Your task to perform on an android device: Open Maps and search for coffee Image 0: 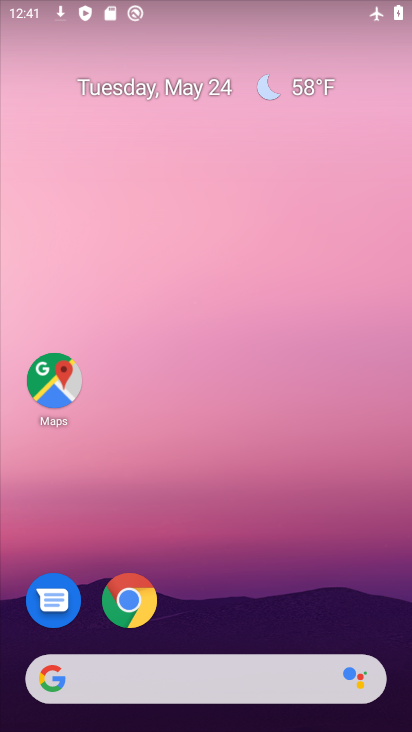
Step 0: drag from (292, 596) to (262, 722)
Your task to perform on an android device: Open Maps and search for coffee Image 1: 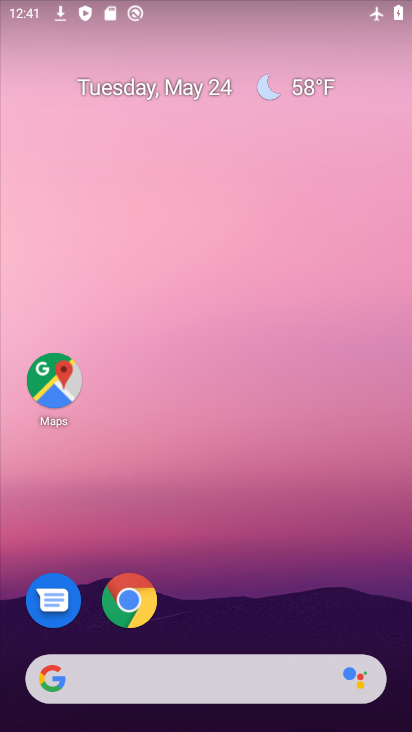
Step 1: click (57, 382)
Your task to perform on an android device: Open Maps and search for coffee Image 2: 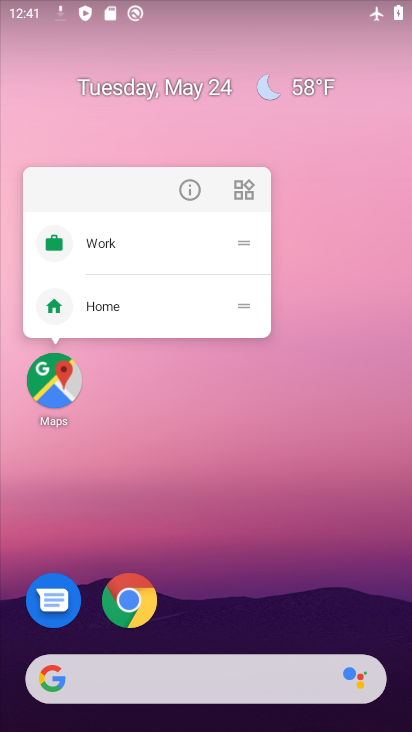
Step 2: click (60, 384)
Your task to perform on an android device: Open Maps and search for coffee Image 3: 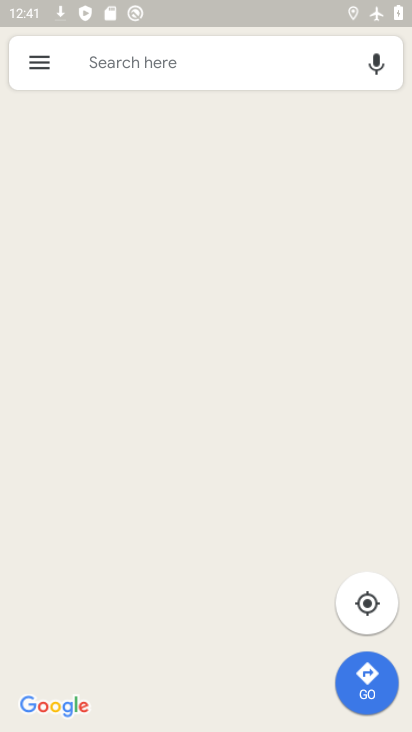
Step 3: click (186, 58)
Your task to perform on an android device: Open Maps and search for coffee Image 4: 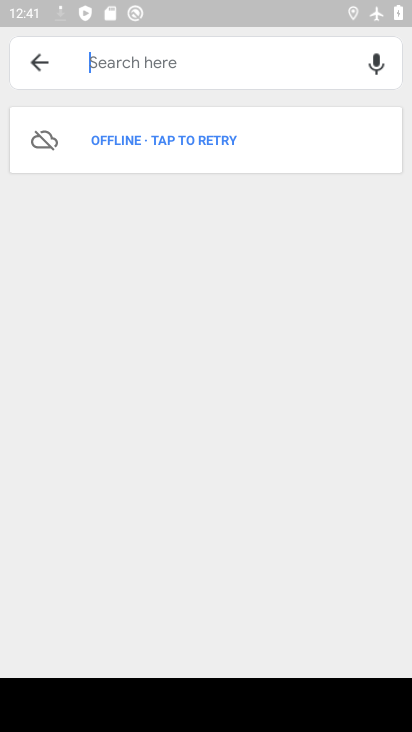
Step 4: type "coffee"
Your task to perform on an android device: Open Maps and search for coffee Image 5: 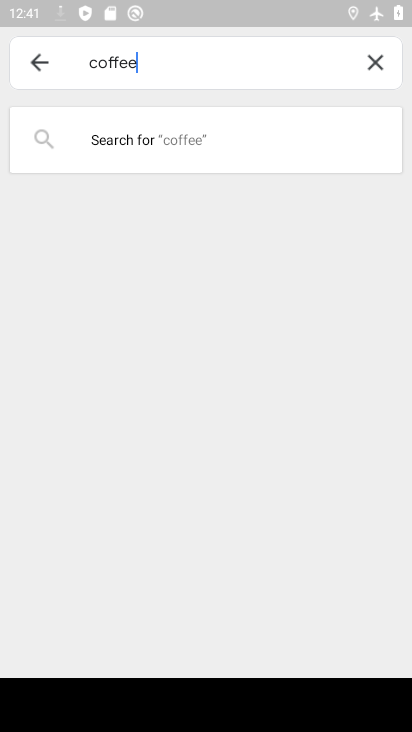
Step 5: click (205, 67)
Your task to perform on an android device: Open Maps and search for coffee Image 6: 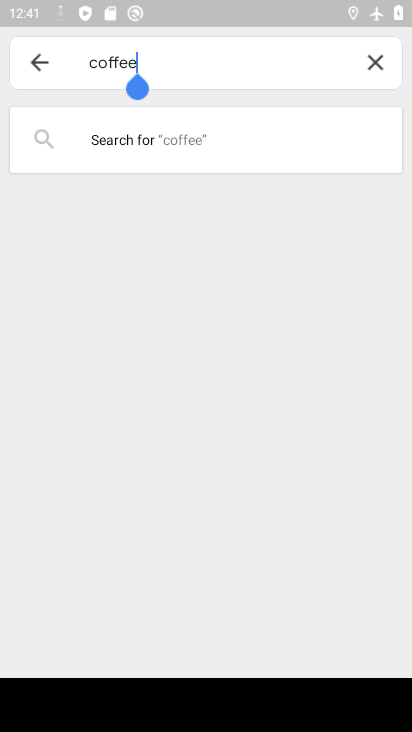
Step 6: click (228, 135)
Your task to perform on an android device: Open Maps and search for coffee Image 7: 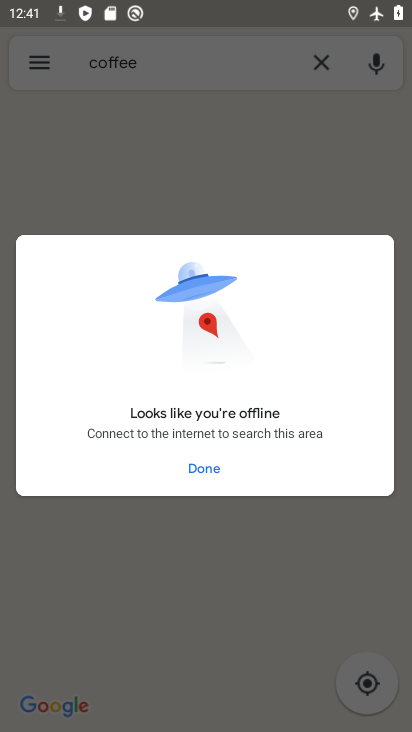
Step 7: click (212, 471)
Your task to perform on an android device: Open Maps and search for coffee Image 8: 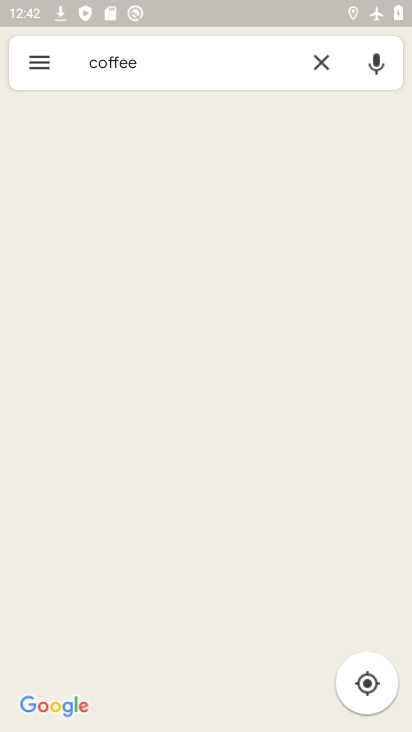
Step 8: task complete